Your task to perform on an android device: Check the weather Image 0: 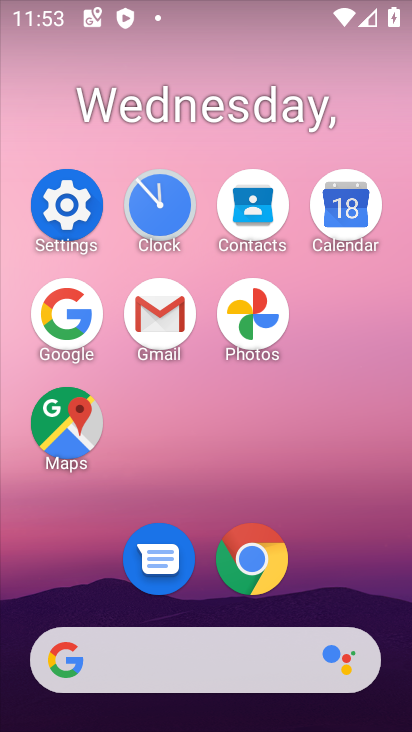
Step 0: click (79, 303)
Your task to perform on an android device: Check the weather Image 1: 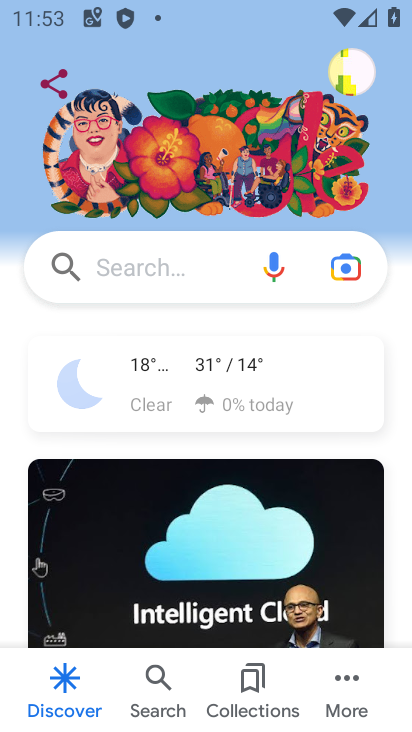
Step 1: click (215, 366)
Your task to perform on an android device: Check the weather Image 2: 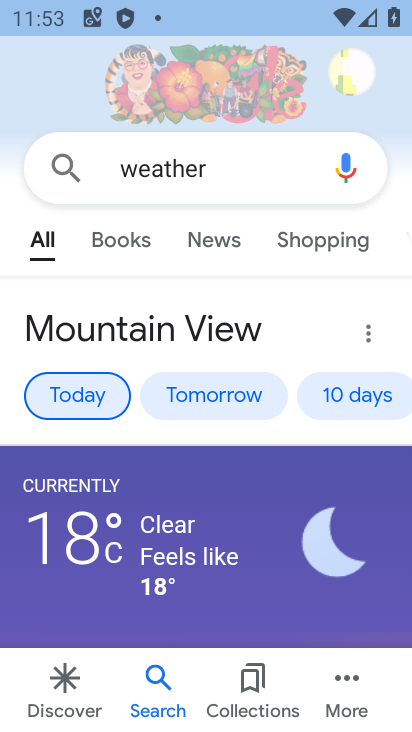
Step 2: task complete